Your task to perform on an android device: toggle airplane mode Image 0: 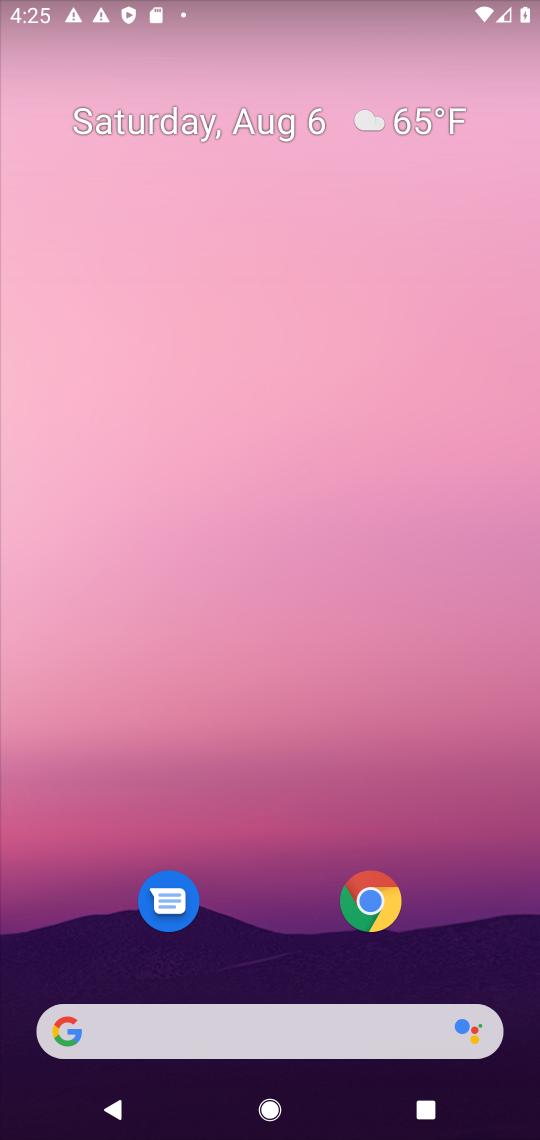
Step 0: press home button
Your task to perform on an android device: toggle airplane mode Image 1: 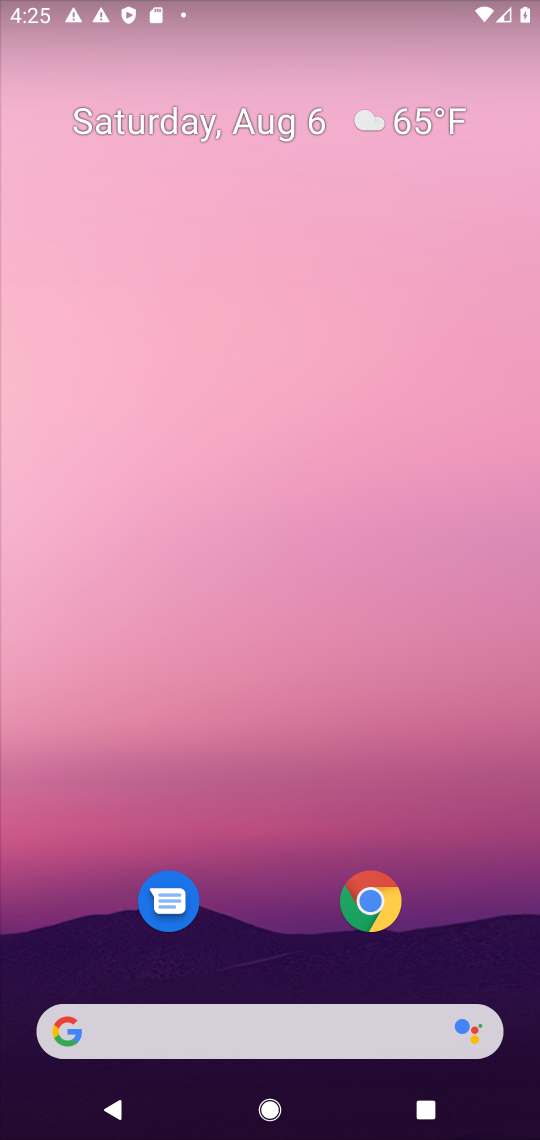
Step 1: drag from (315, 7) to (263, 1034)
Your task to perform on an android device: toggle airplane mode Image 2: 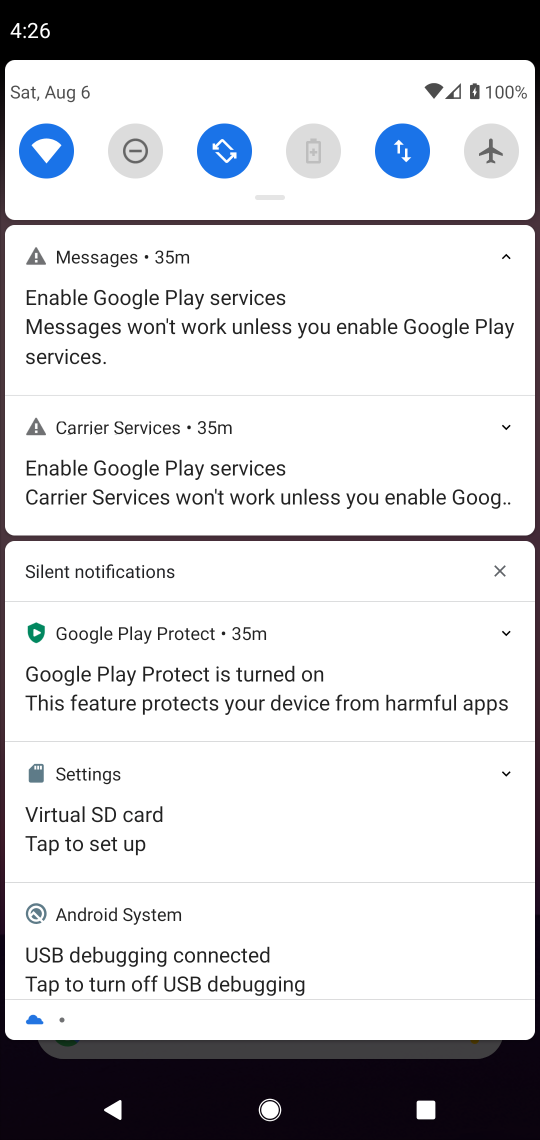
Step 2: drag from (258, 185) to (286, 1018)
Your task to perform on an android device: toggle airplane mode Image 3: 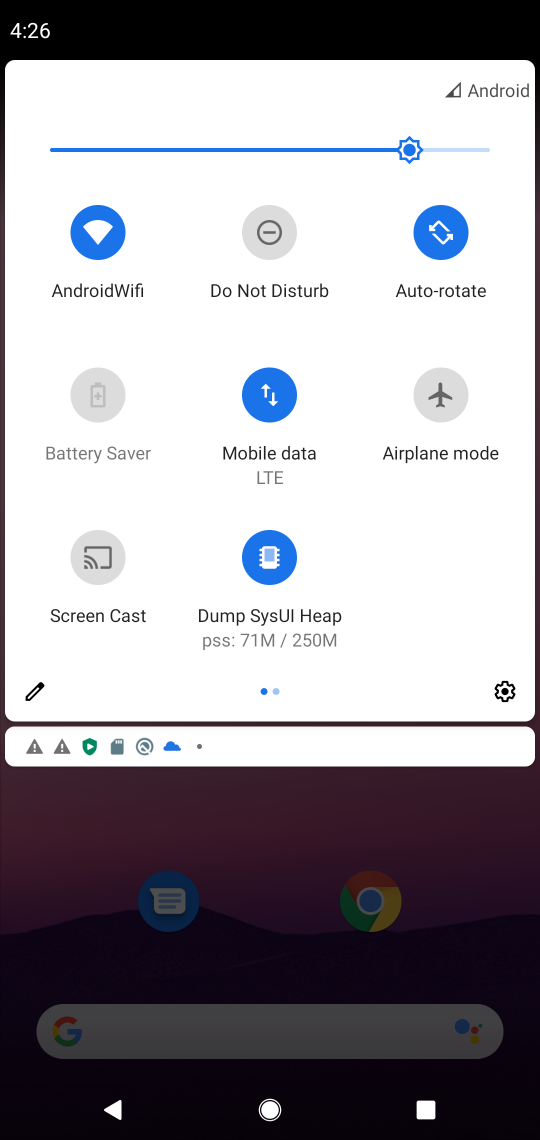
Step 3: click (411, 408)
Your task to perform on an android device: toggle airplane mode Image 4: 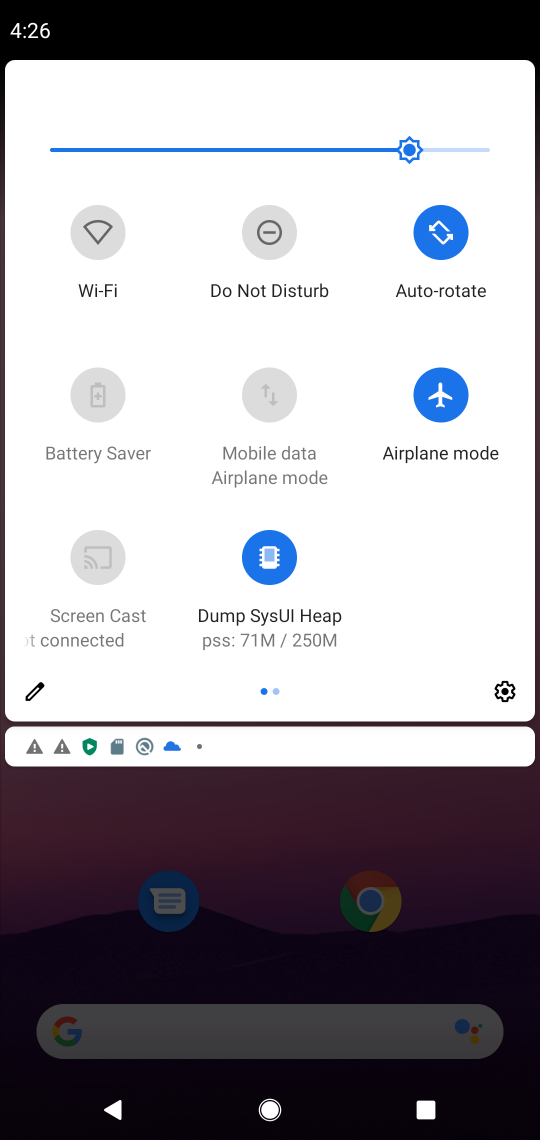
Step 4: task complete